Your task to perform on an android device: empty trash in the gmail app Image 0: 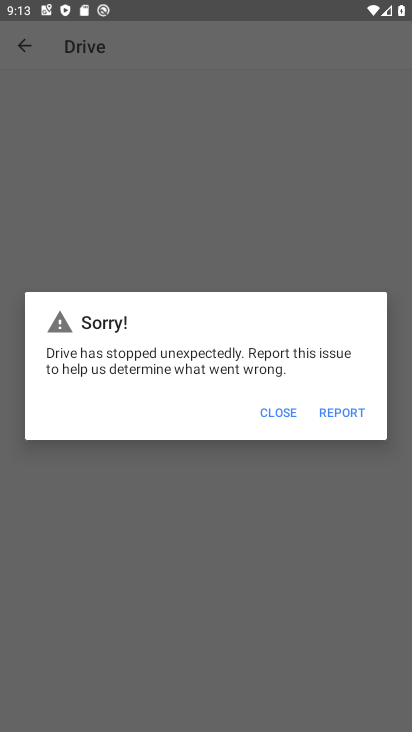
Step 0: press home button
Your task to perform on an android device: empty trash in the gmail app Image 1: 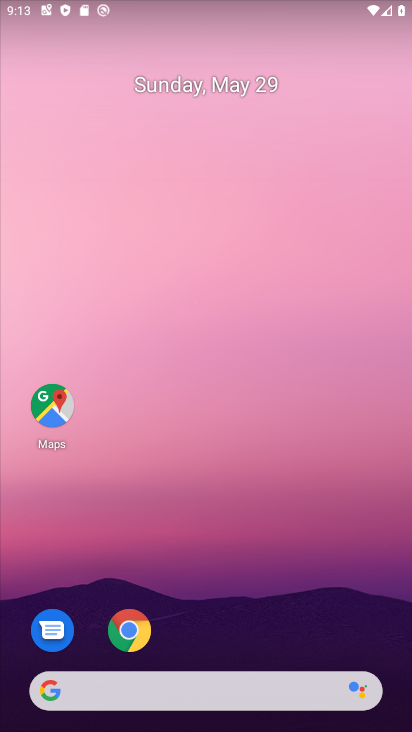
Step 1: drag from (303, 575) to (288, 134)
Your task to perform on an android device: empty trash in the gmail app Image 2: 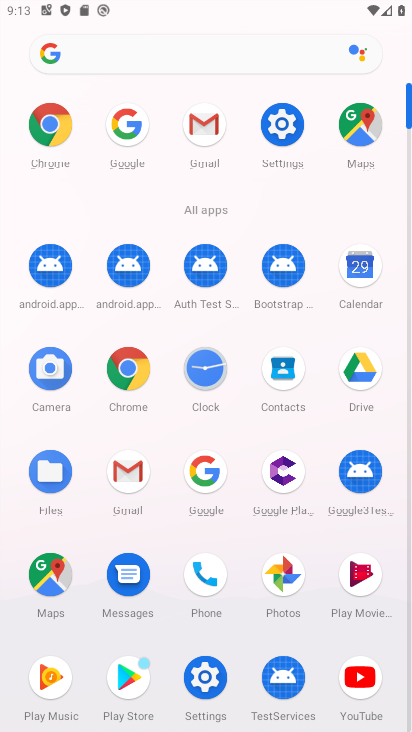
Step 2: click (126, 471)
Your task to perform on an android device: empty trash in the gmail app Image 3: 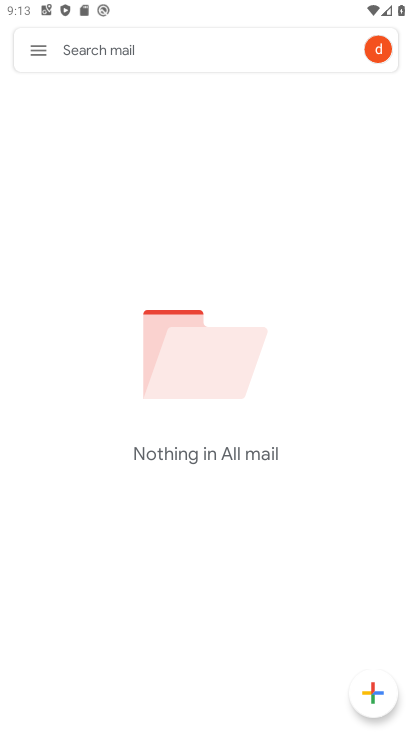
Step 3: click (36, 54)
Your task to perform on an android device: empty trash in the gmail app Image 4: 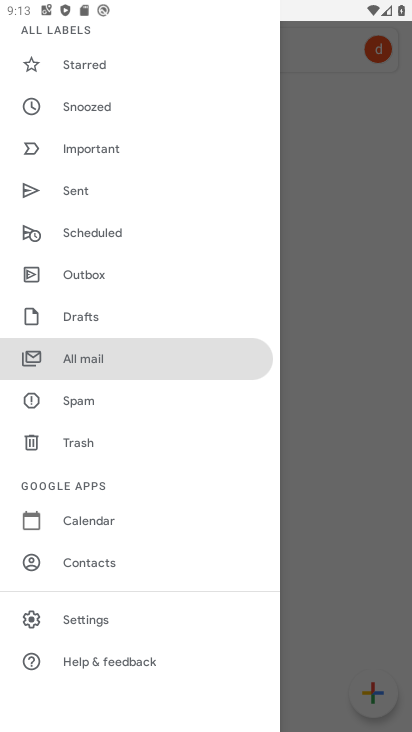
Step 4: click (83, 447)
Your task to perform on an android device: empty trash in the gmail app Image 5: 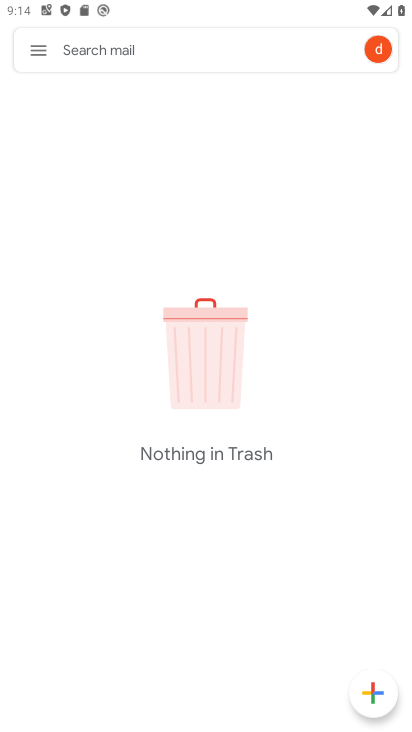
Step 5: task complete